Your task to perform on an android device: turn off airplane mode Image 0: 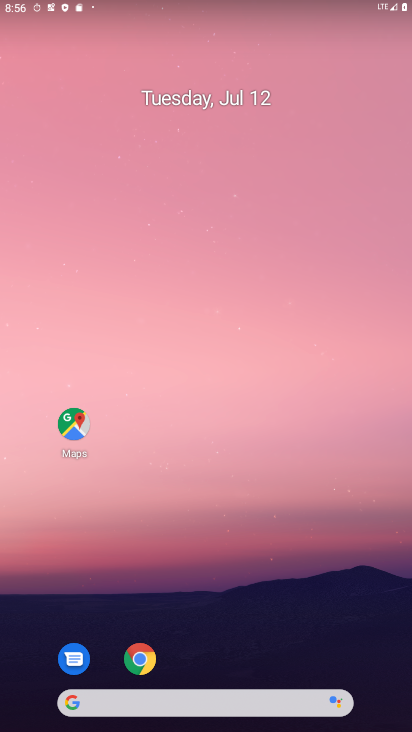
Step 0: drag from (375, 681) to (247, 17)
Your task to perform on an android device: turn off airplane mode Image 1: 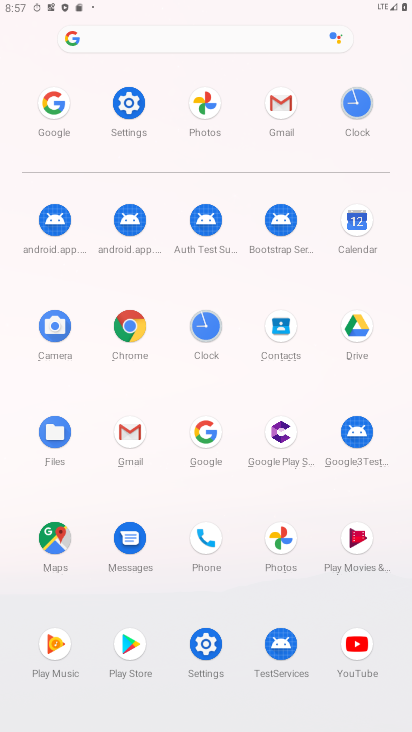
Step 1: task complete